Your task to perform on an android device: Open Google Chrome and click the shortcut for Amazon.com Image 0: 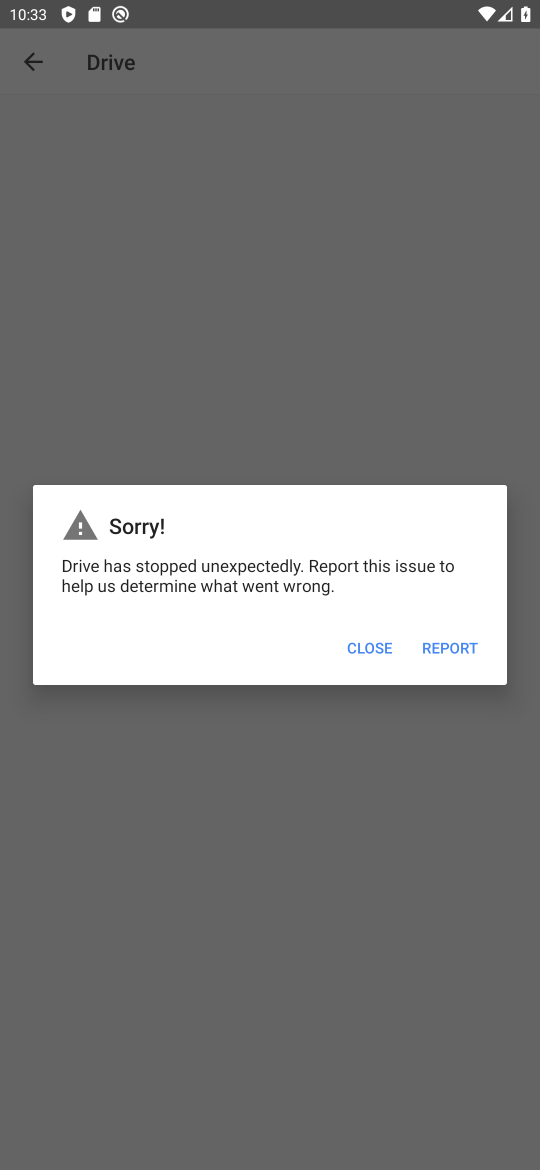
Step 0: press home button
Your task to perform on an android device: Open Google Chrome and click the shortcut for Amazon.com Image 1: 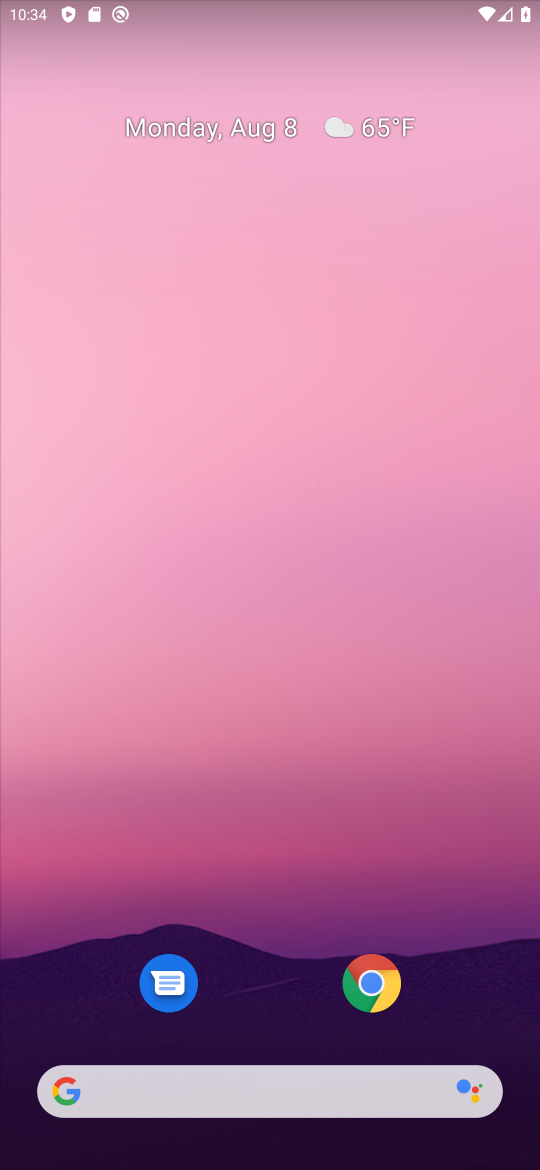
Step 1: click (353, 996)
Your task to perform on an android device: Open Google Chrome and click the shortcut for Amazon.com Image 2: 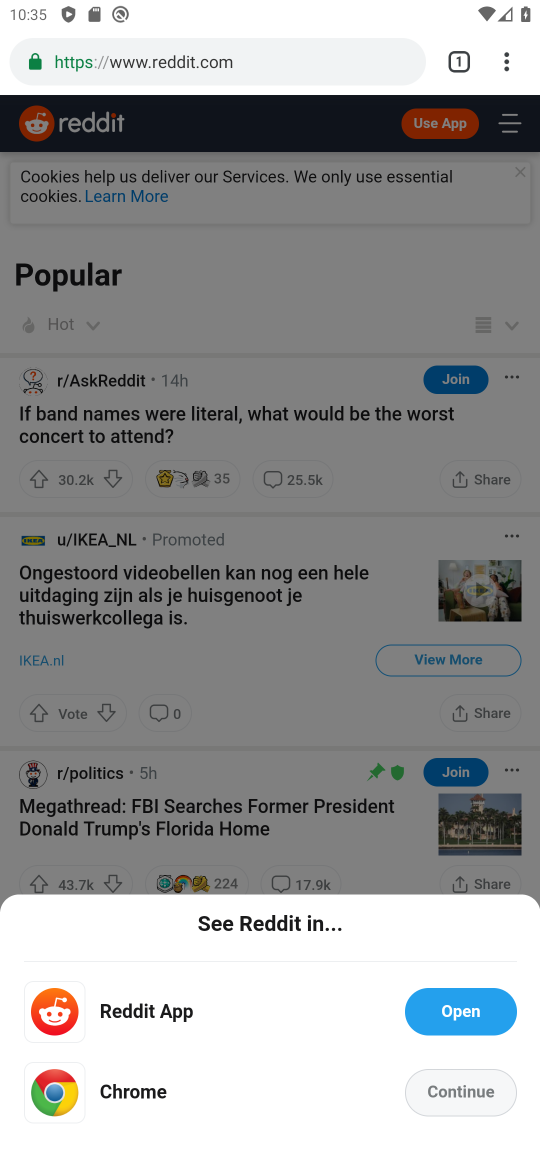
Step 2: task complete